Your task to perform on an android device: Search for Mexican restaurants on Maps Image 0: 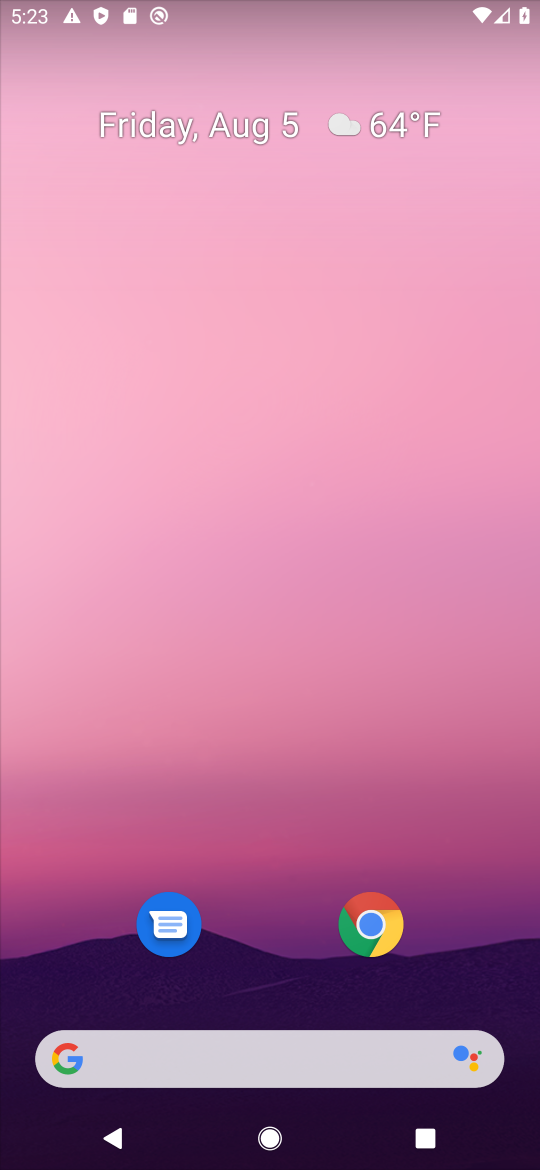
Step 0: drag from (196, 1132) to (262, 308)
Your task to perform on an android device: Search for Mexican restaurants on Maps Image 1: 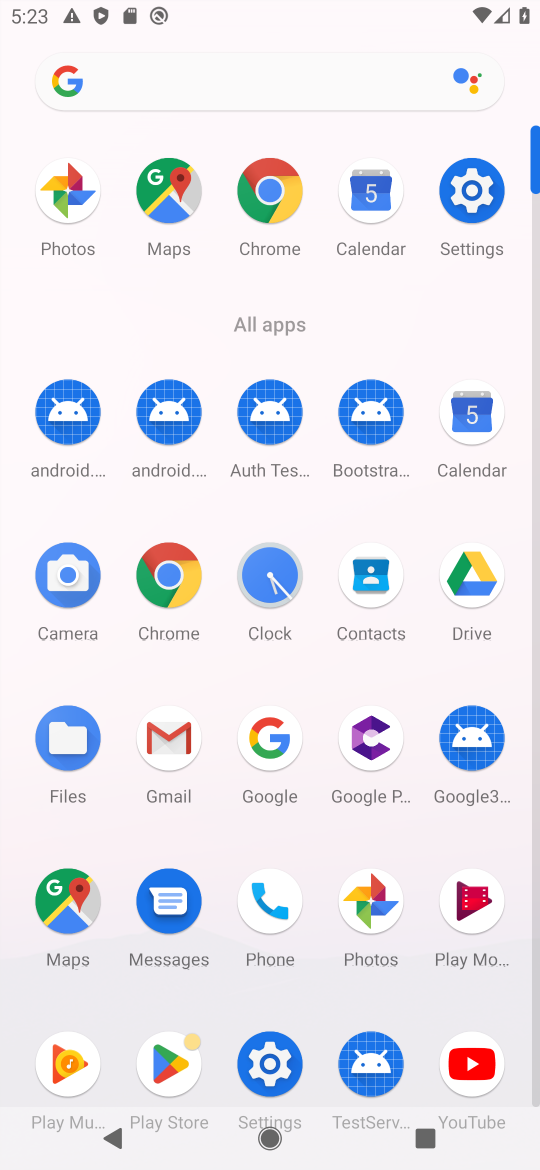
Step 1: click (72, 901)
Your task to perform on an android device: Search for Mexican restaurants on Maps Image 2: 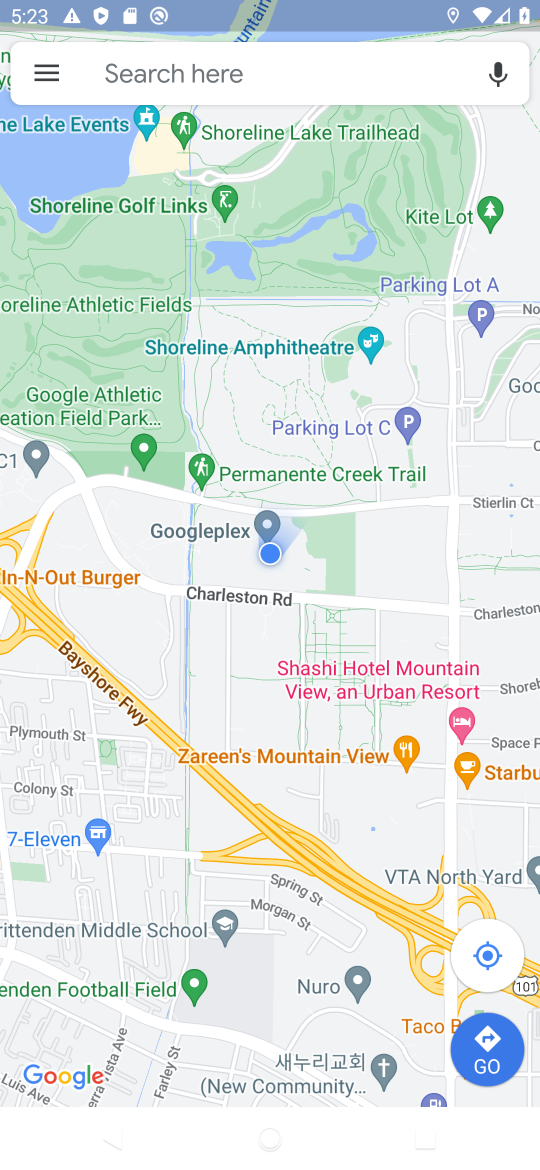
Step 2: click (250, 70)
Your task to perform on an android device: Search for Mexican restaurants on Maps Image 3: 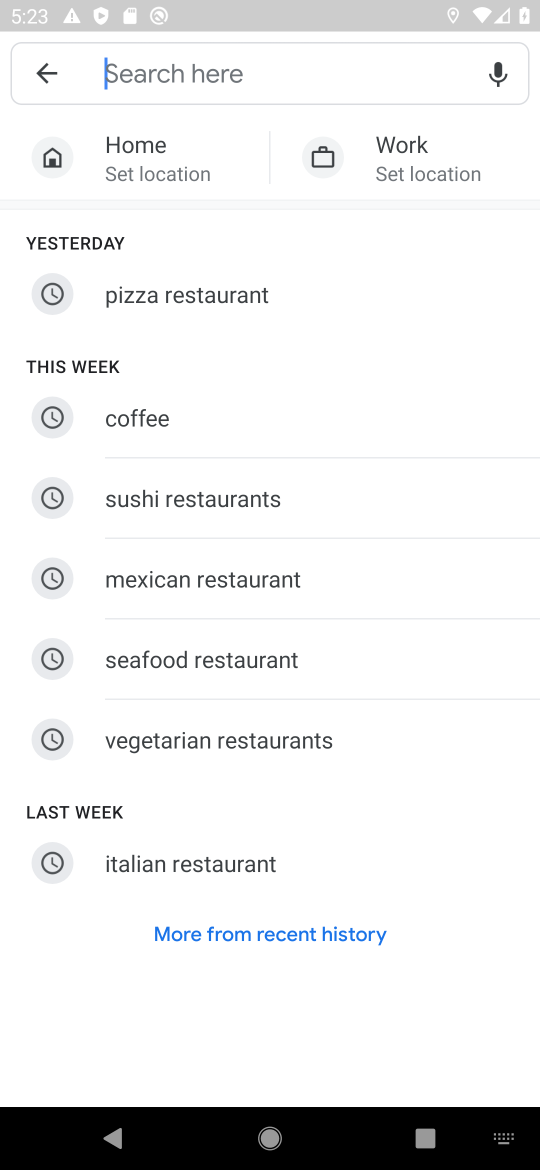
Step 3: click (207, 582)
Your task to perform on an android device: Search for Mexican restaurants on Maps Image 4: 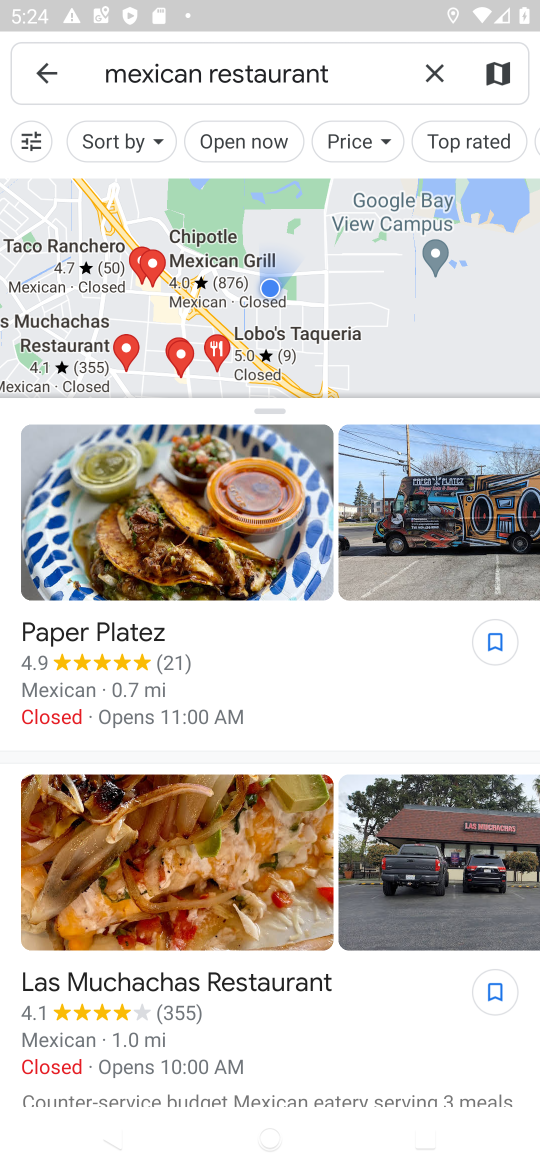
Step 4: task complete